Your task to perform on an android device: check google app version Image 0: 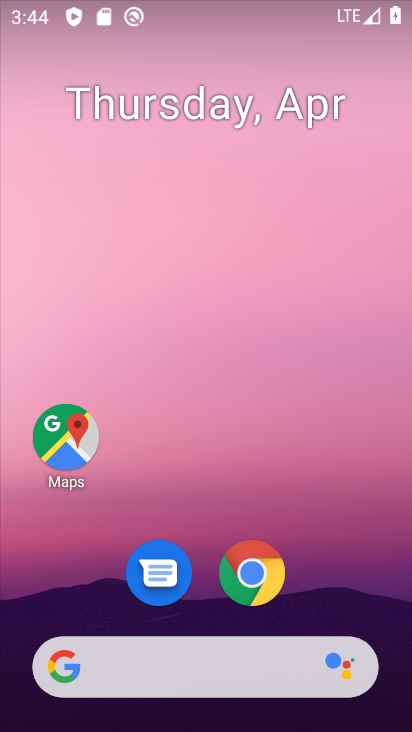
Step 0: drag from (354, 614) to (258, 62)
Your task to perform on an android device: check google app version Image 1: 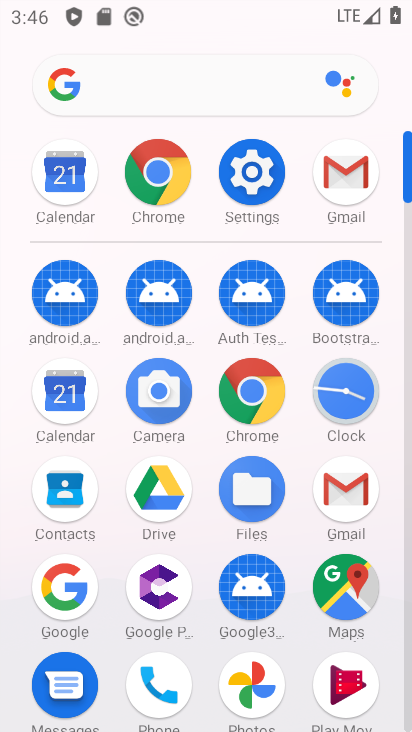
Step 1: click (79, 582)
Your task to perform on an android device: check google app version Image 2: 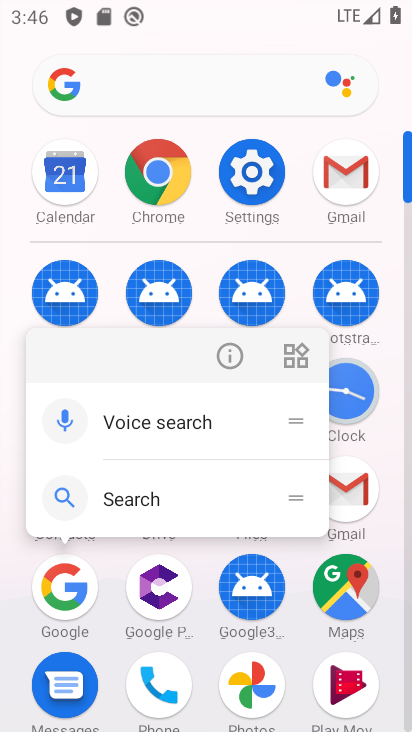
Step 2: click (233, 355)
Your task to perform on an android device: check google app version Image 3: 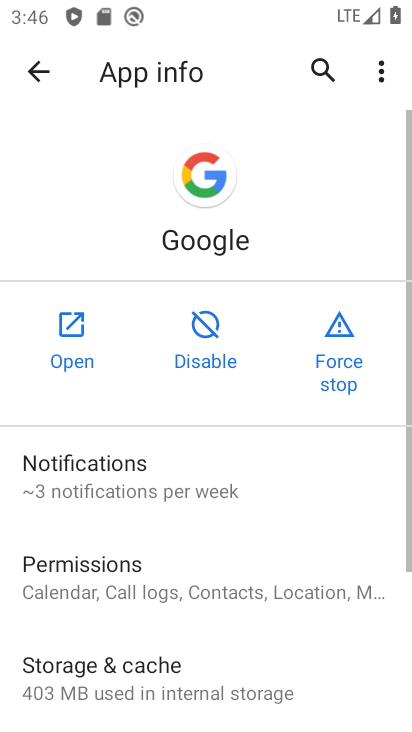
Step 3: drag from (213, 608) to (342, 37)
Your task to perform on an android device: check google app version Image 4: 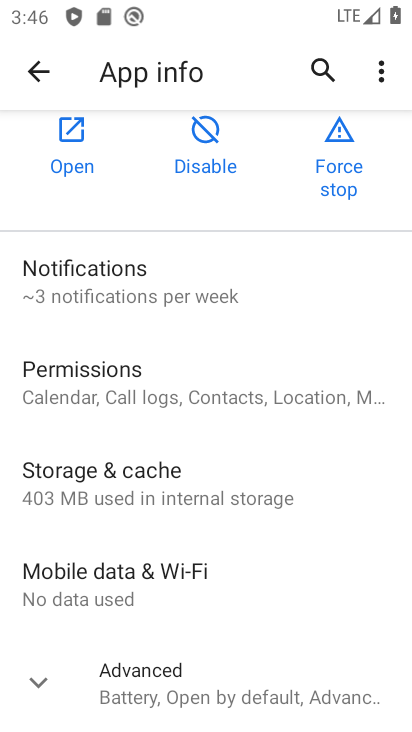
Step 4: click (47, 694)
Your task to perform on an android device: check google app version Image 5: 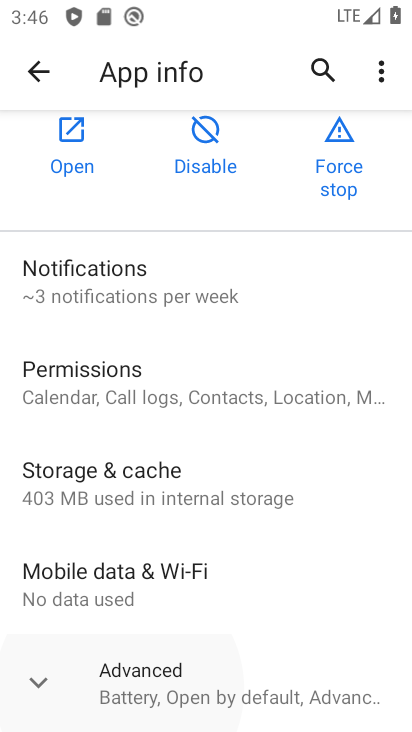
Step 5: task complete